Your task to perform on an android device: Open Wikipedia Image 0: 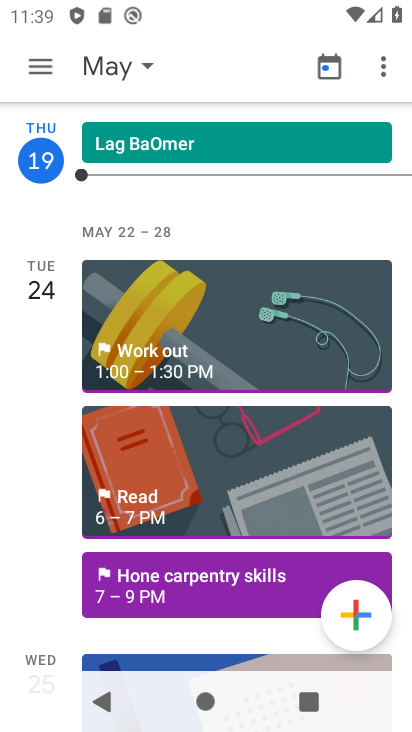
Step 0: press home button
Your task to perform on an android device: Open Wikipedia Image 1: 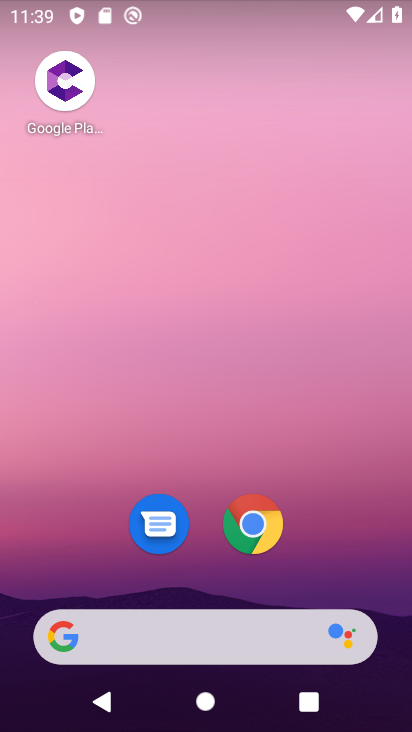
Step 1: drag from (233, 447) to (223, 79)
Your task to perform on an android device: Open Wikipedia Image 2: 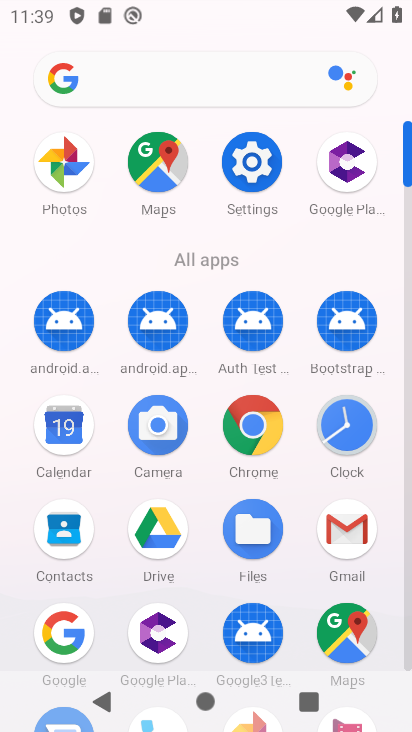
Step 2: drag from (202, 471) to (203, 214)
Your task to perform on an android device: Open Wikipedia Image 3: 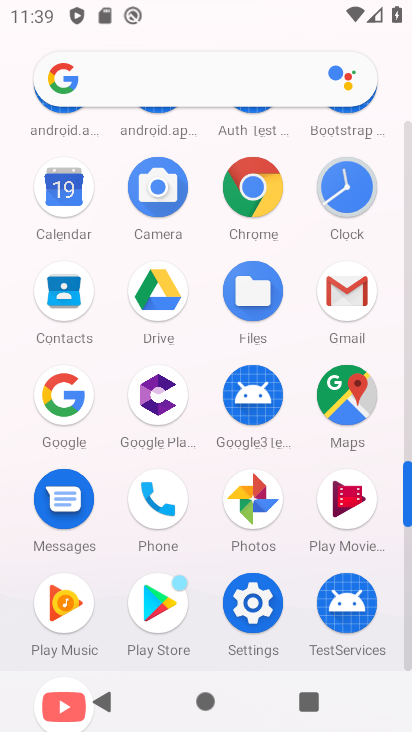
Step 3: click (242, 197)
Your task to perform on an android device: Open Wikipedia Image 4: 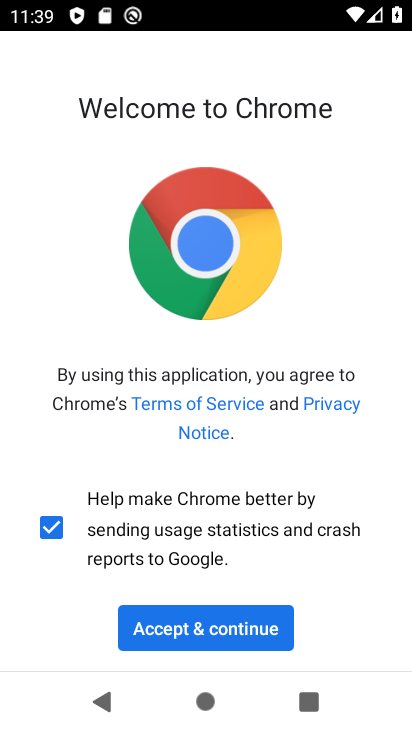
Step 4: click (234, 623)
Your task to perform on an android device: Open Wikipedia Image 5: 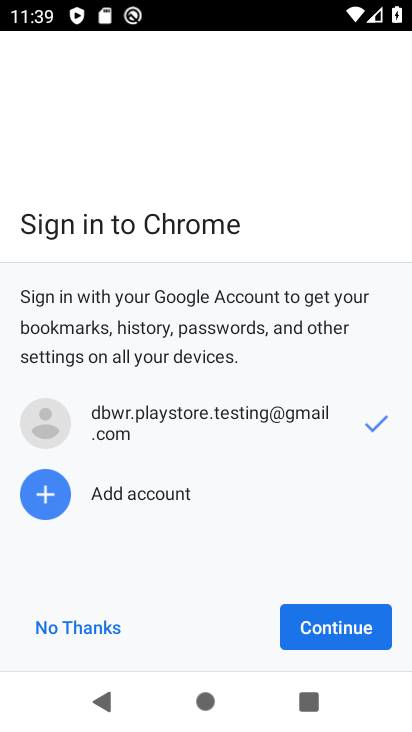
Step 5: click (319, 626)
Your task to perform on an android device: Open Wikipedia Image 6: 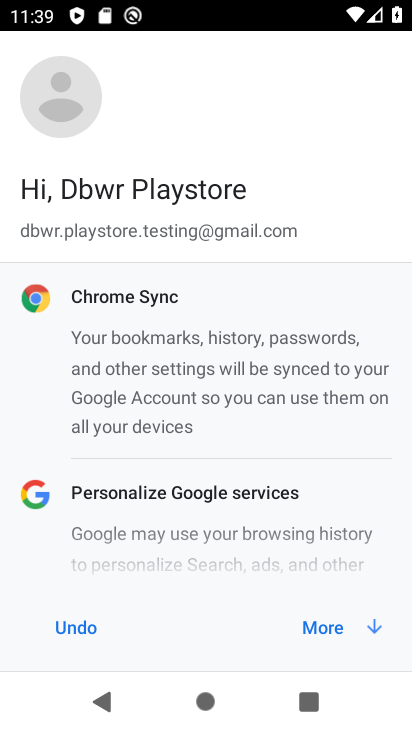
Step 6: click (319, 626)
Your task to perform on an android device: Open Wikipedia Image 7: 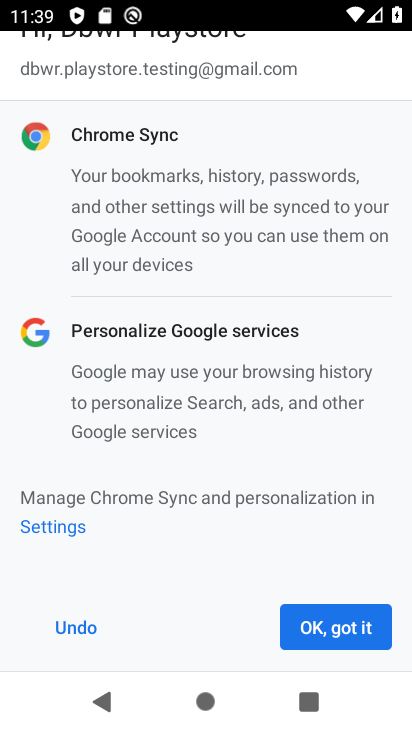
Step 7: click (319, 623)
Your task to perform on an android device: Open Wikipedia Image 8: 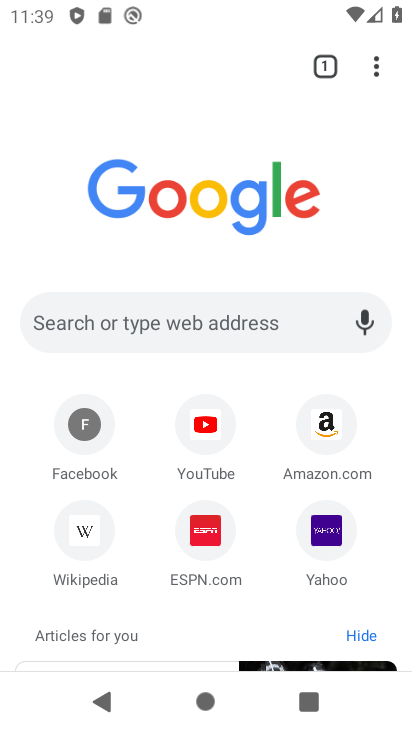
Step 8: click (86, 527)
Your task to perform on an android device: Open Wikipedia Image 9: 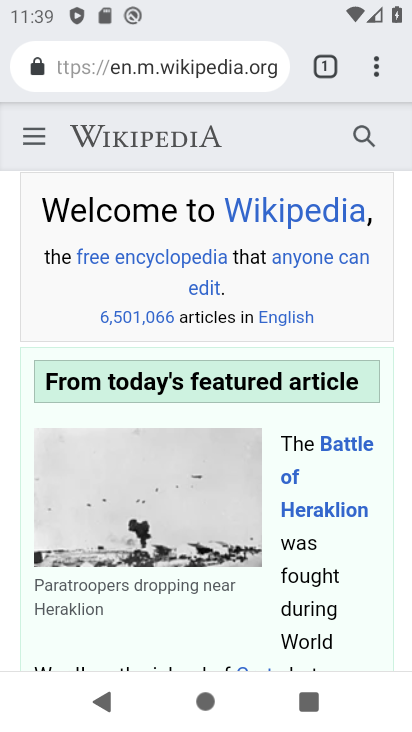
Step 9: task complete